Your task to perform on an android device: Go to Google Image 0: 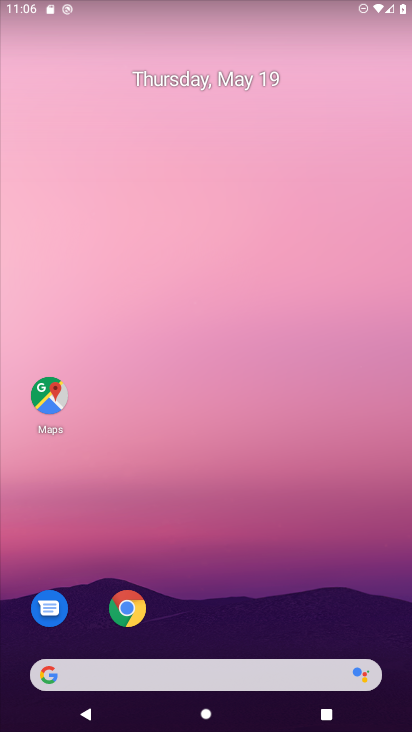
Step 0: press home button
Your task to perform on an android device: Go to Google Image 1: 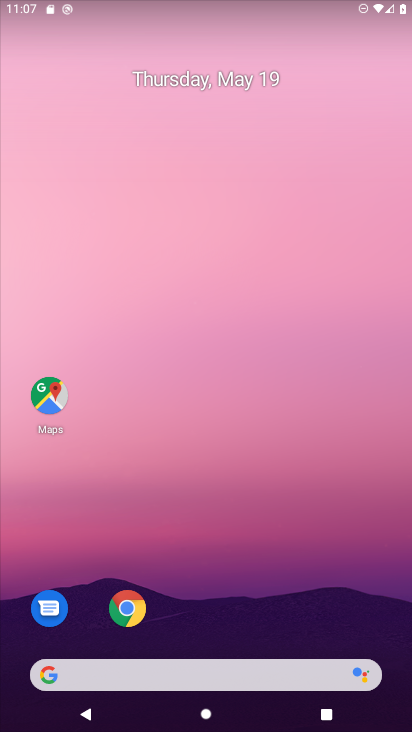
Step 1: drag from (307, 569) to (261, 51)
Your task to perform on an android device: Go to Google Image 2: 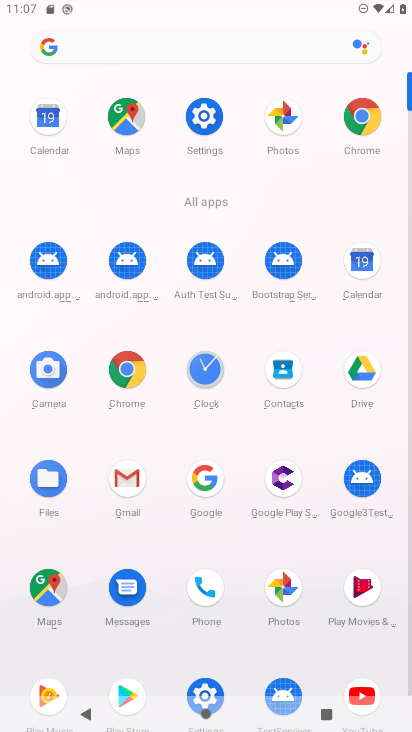
Step 2: click (197, 476)
Your task to perform on an android device: Go to Google Image 3: 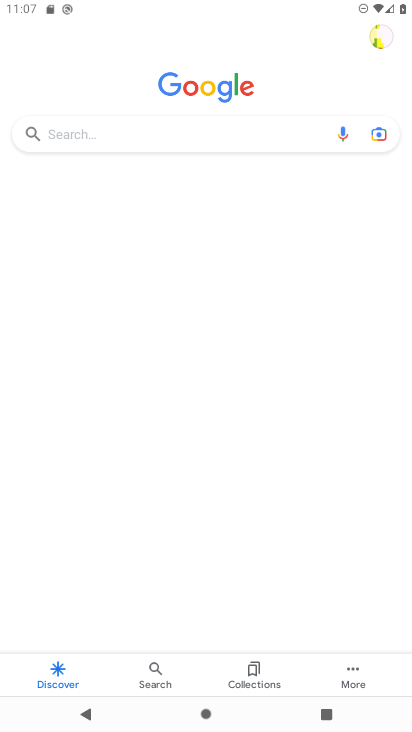
Step 3: task complete